Your task to perform on an android device: turn off translation in the chrome app Image 0: 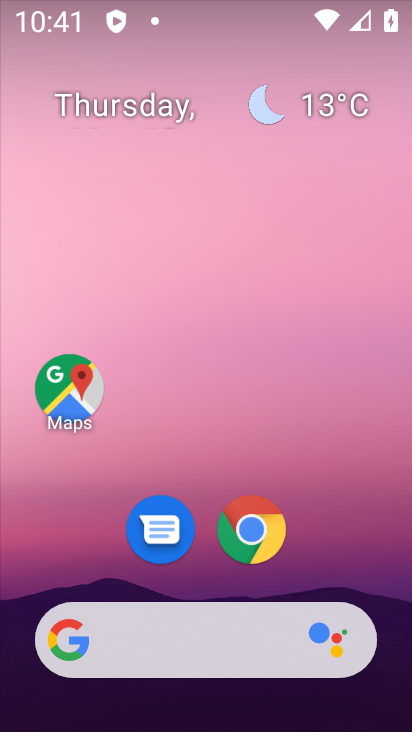
Step 0: click (253, 530)
Your task to perform on an android device: turn off translation in the chrome app Image 1: 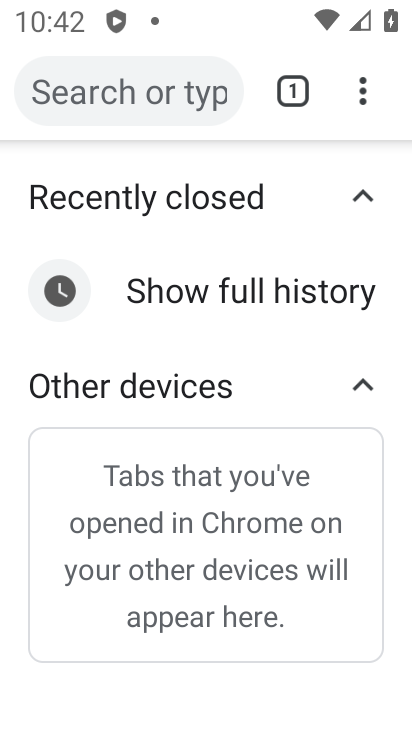
Step 1: click (366, 93)
Your task to perform on an android device: turn off translation in the chrome app Image 2: 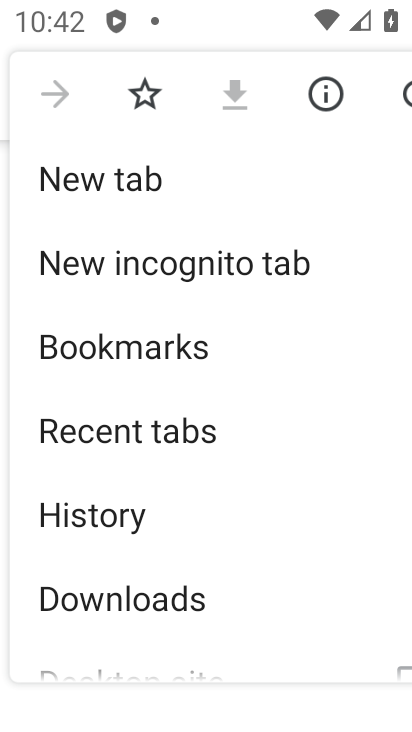
Step 2: drag from (194, 551) to (165, 280)
Your task to perform on an android device: turn off translation in the chrome app Image 3: 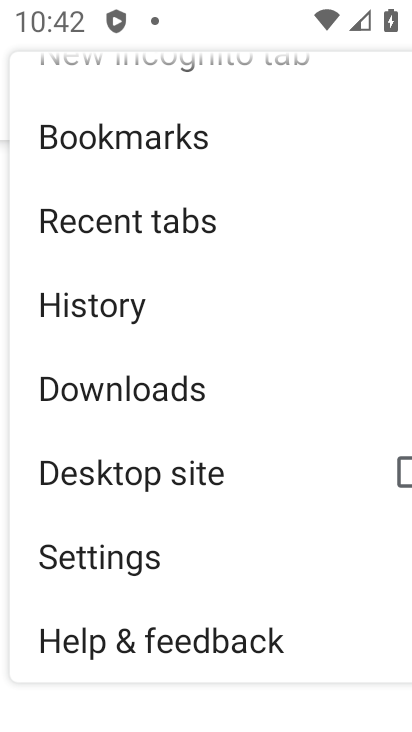
Step 3: click (140, 555)
Your task to perform on an android device: turn off translation in the chrome app Image 4: 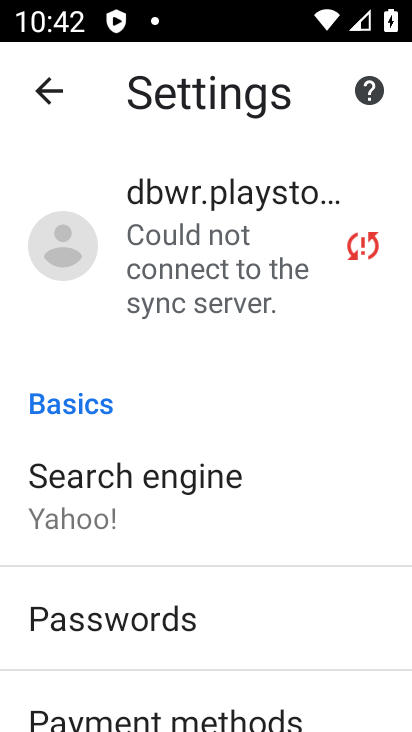
Step 4: drag from (154, 594) to (130, 350)
Your task to perform on an android device: turn off translation in the chrome app Image 5: 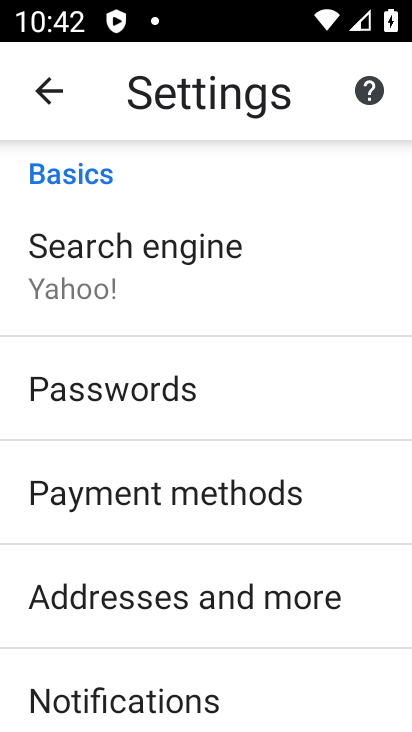
Step 5: drag from (158, 644) to (180, 383)
Your task to perform on an android device: turn off translation in the chrome app Image 6: 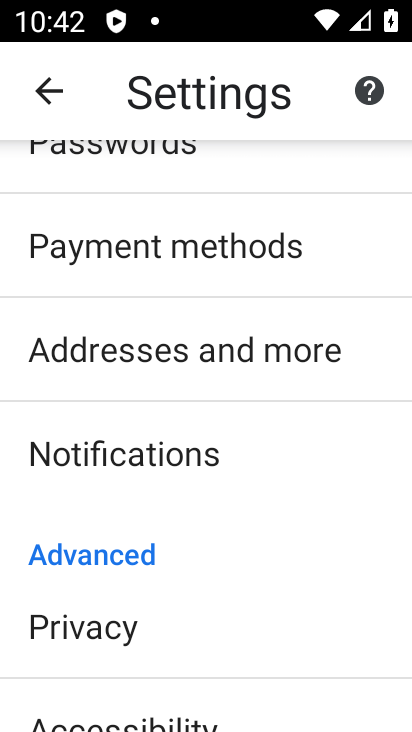
Step 6: click (163, 467)
Your task to perform on an android device: turn off translation in the chrome app Image 7: 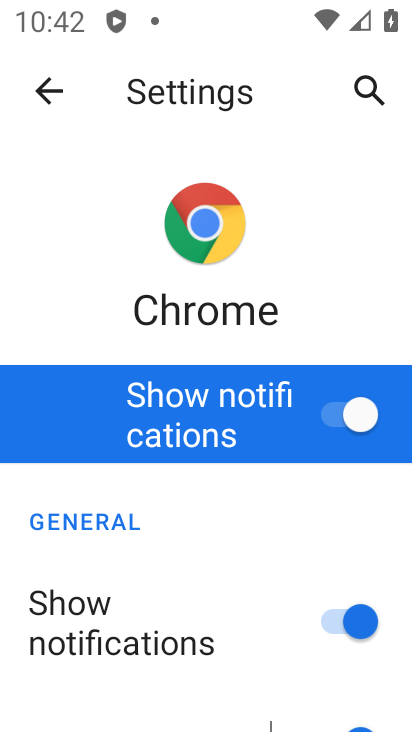
Step 7: click (325, 418)
Your task to perform on an android device: turn off translation in the chrome app Image 8: 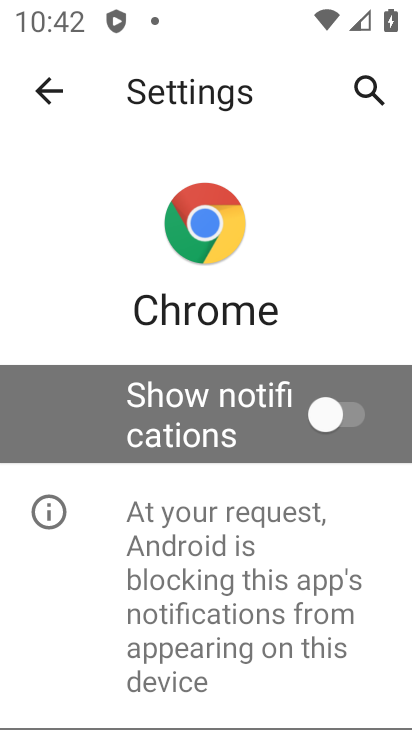
Step 8: task complete